Your task to perform on an android device: toggle wifi Image 0: 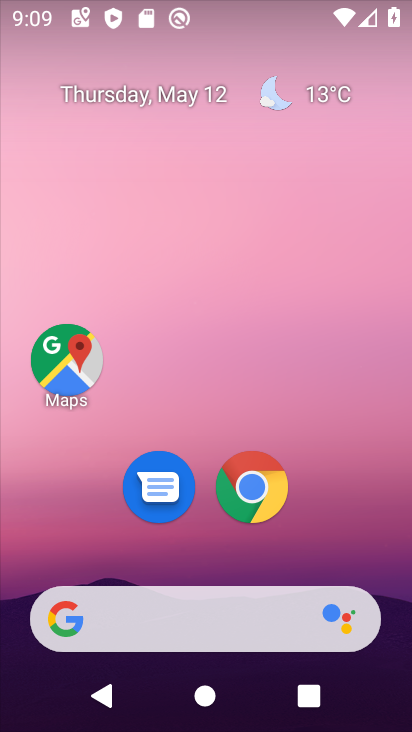
Step 0: drag from (382, 565) to (316, 2)
Your task to perform on an android device: toggle wifi Image 1: 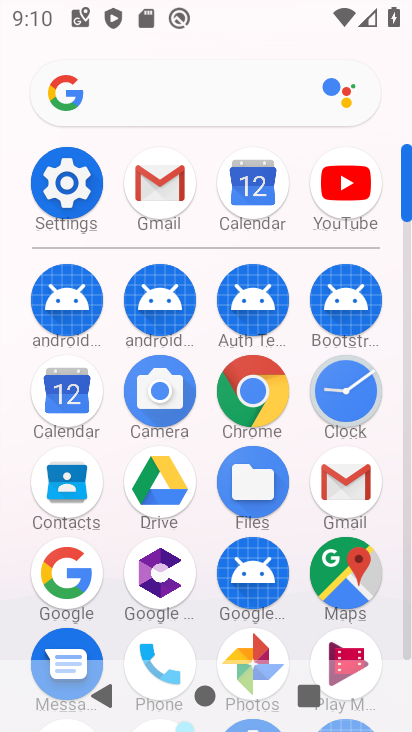
Step 1: click (67, 192)
Your task to perform on an android device: toggle wifi Image 2: 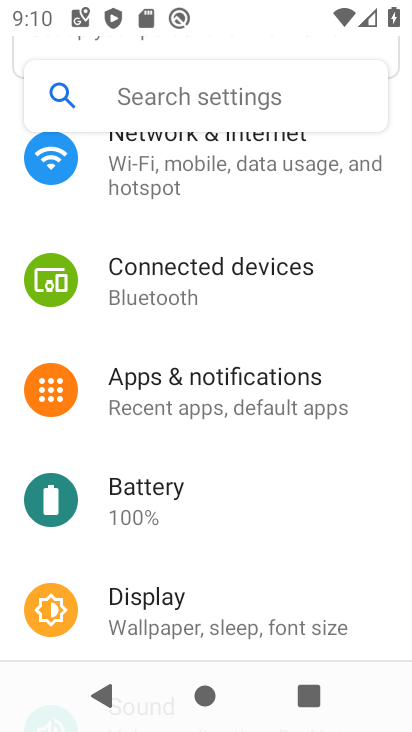
Step 2: click (195, 165)
Your task to perform on an android device: toggle wifi Image 3: 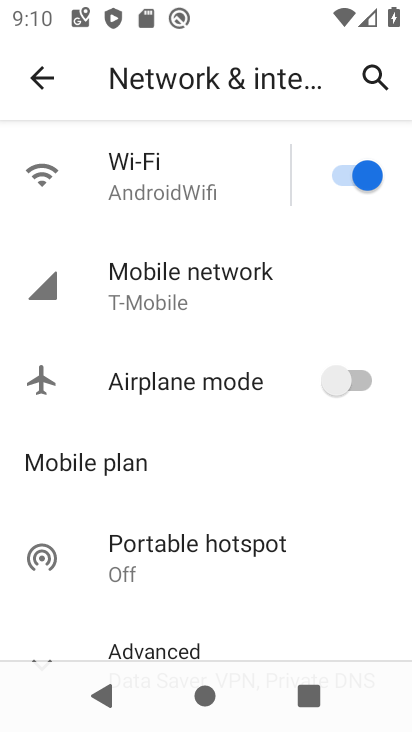
Step 3: click (371, 197)
Your task to perform on an android device: toggle wifi Image 4: 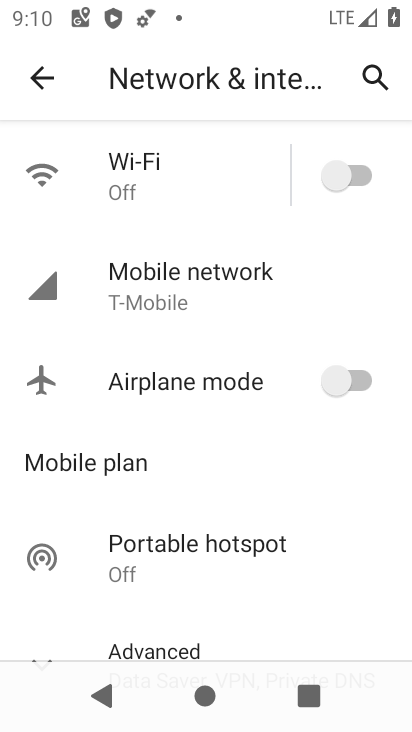
Step 4: task complete